Your task to perform on an android device: change keyboard looks Image 0: 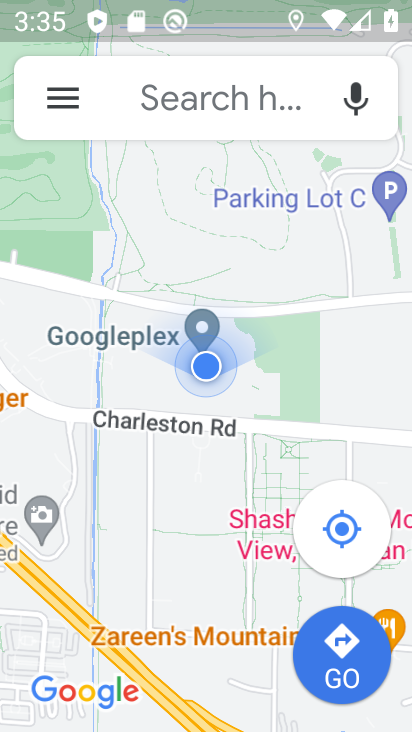
Step 0: press home button
Your task to perform on an android device: change keyboard looks Image 1: 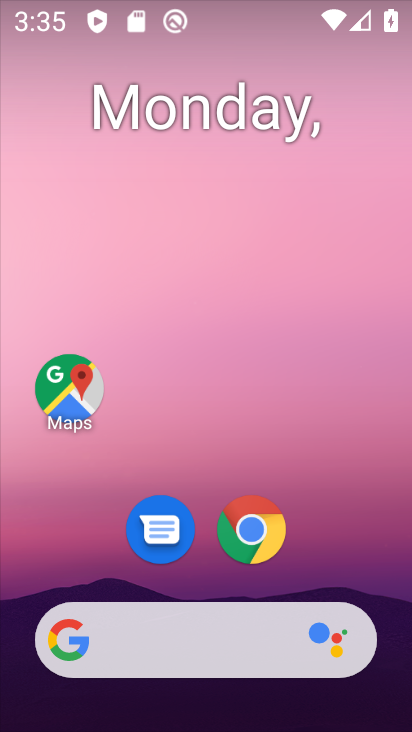
Step 1: drag from (195, 572) to (278, 26)
Your task to perform on an android device: change keyboard looks Image 2: 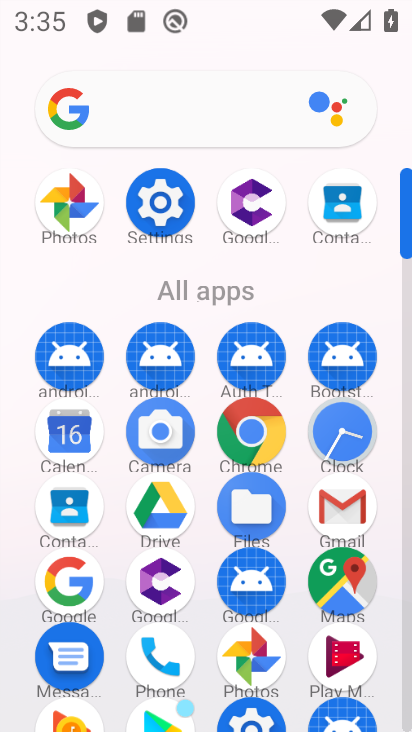
Step 2: click (168, 215)
Your task to perform on an android device: change keyboard looks Image 3: 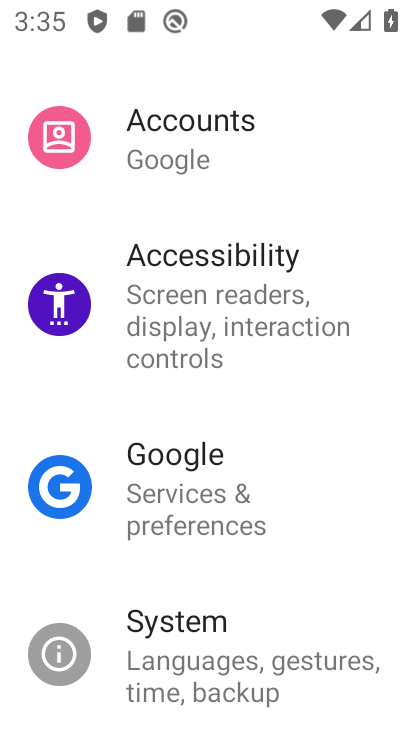
Step 3: drag from (210, 560) to (296, 42)
Your task to perform on an android device: change keyboard looks Image 4: 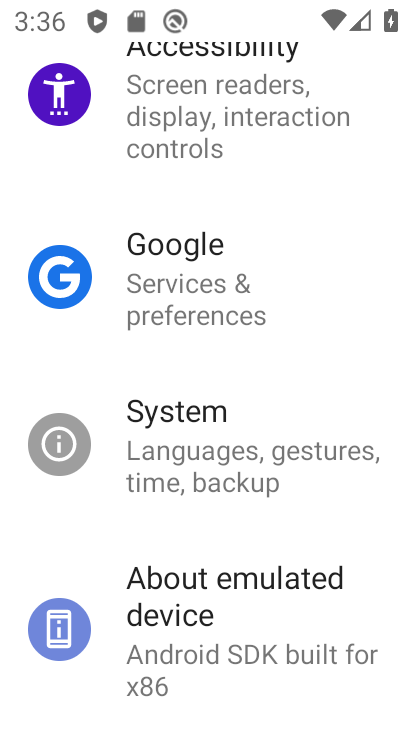
Step 4: drag from (226, 593) to (311, 203)
Your task to perform on an android device: change keyboard looks Image 5: 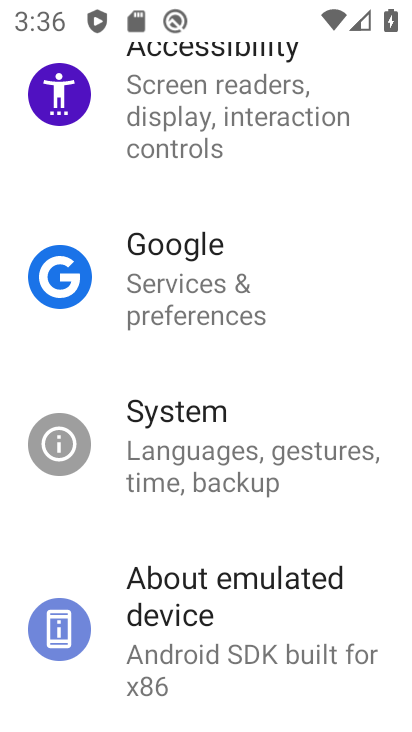
Step 5: click (191, 435)
Your task to perform on an android device: change keyboard looks Image 6: 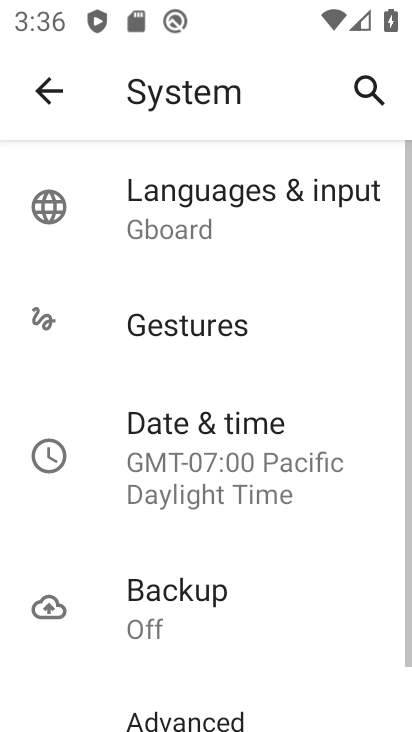
Step 6: click (213, 224)
Your task to perform on an android device: change keyboard looks Image 7: 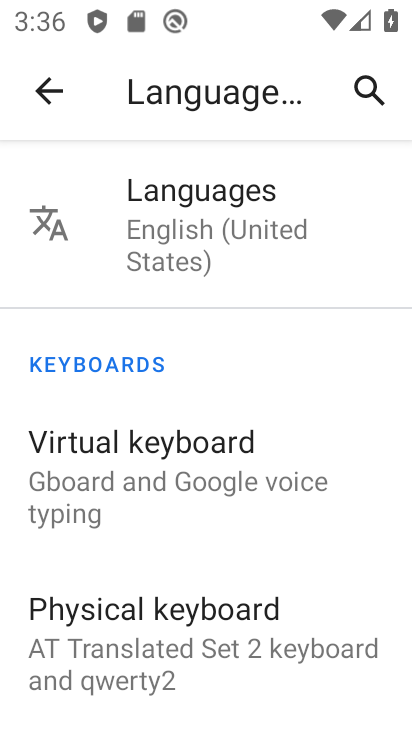
Step 7: click (193, 471)
Your task to perform on an android device: change keyboard looks Image 8: 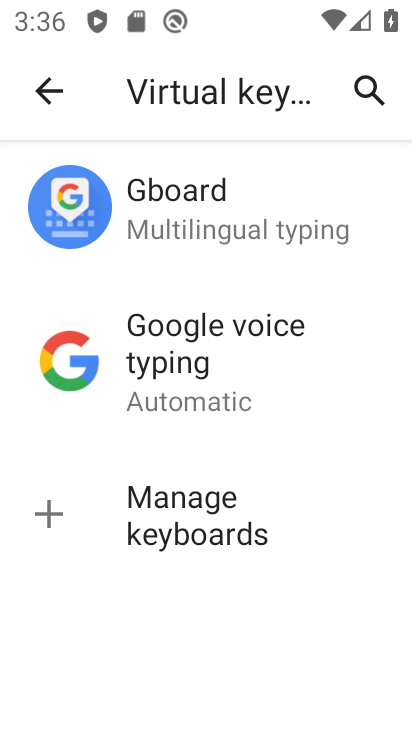
Step 8: click (220, 215)
Your task to perform on an android device: change keyboard looks Image 9: 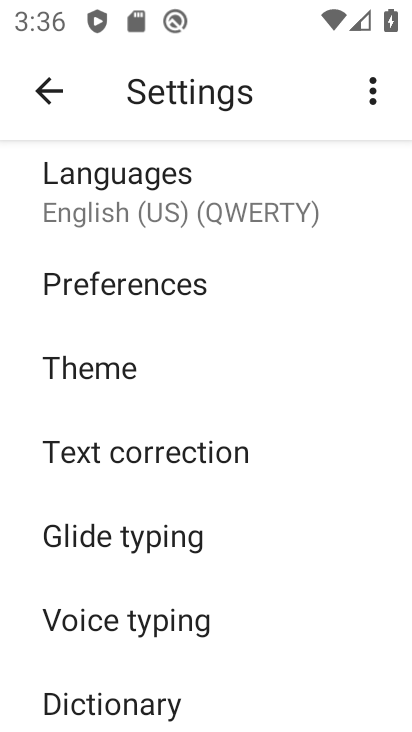
Step 9: click (141, 373)
Your task to perform on an android device: change keyboard looks Image 10: 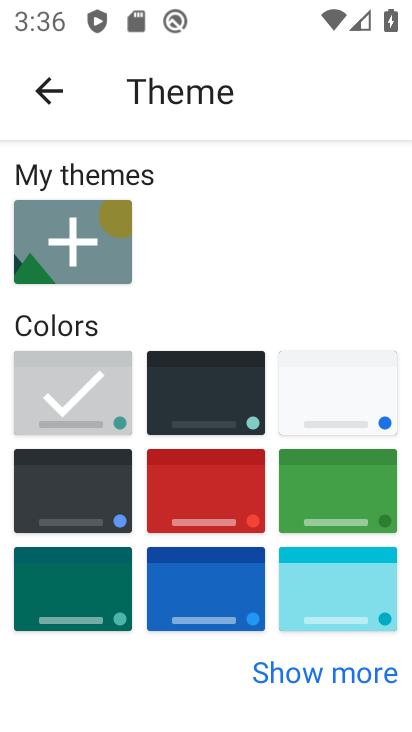
Step 10: click (86, 497)
Your task to perform on an android device: change keyboard looks Image 11: 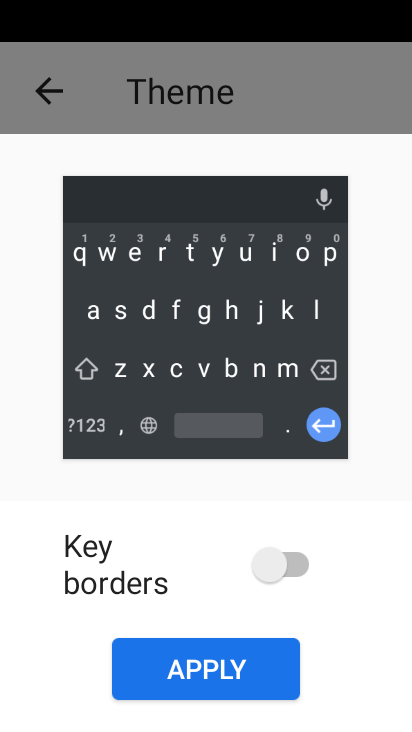
Step 11: click (211, 679)
Your task to perform on an android device: change keyboard looks Image 12: 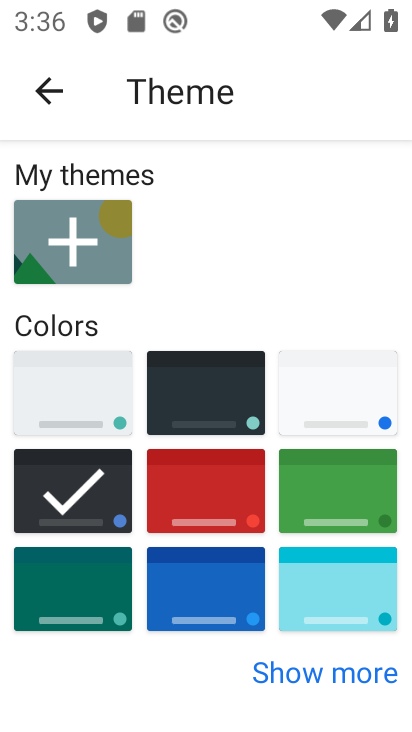
Step 12: task complete